Your task to perform on an android device: Open the phone app and click the voicemail tab. Image 0: 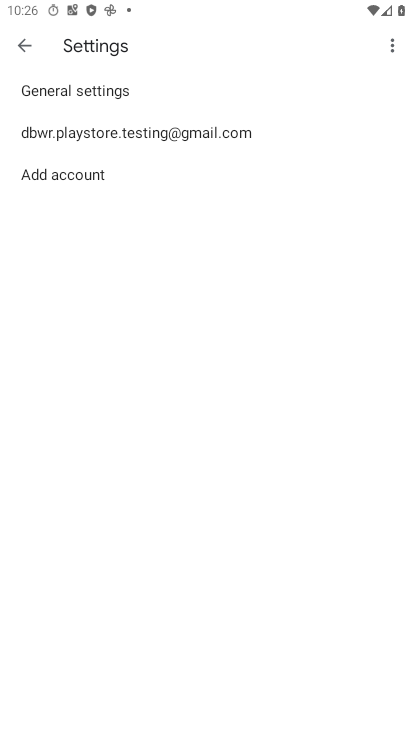
Step 0: press home button
Your task to perform on an android device: Open the phone app and click the voicemail tab. Image 1: 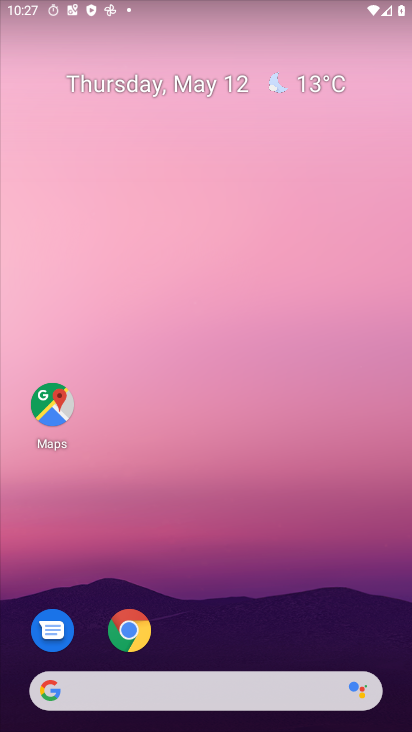
Step 1: drag from (202, 694) to (174, 291)
Your task to perform on an android device: Open the phone app and click the voicemail tab. Image 2: 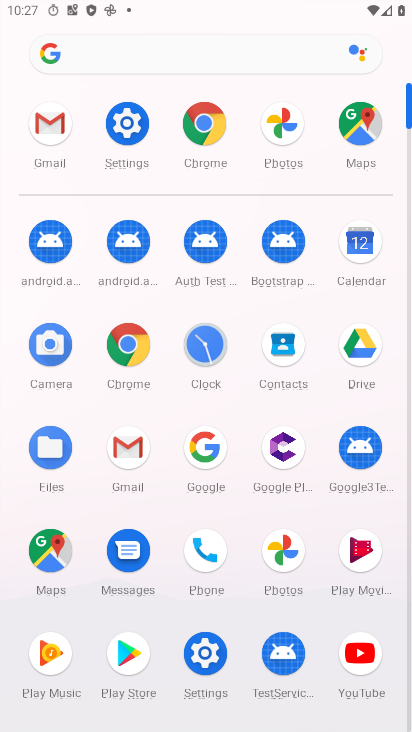
Step 2: click (193, 547)
Your task to perform on an android device: Open the phone app and click the voicemail tab. Image 3: 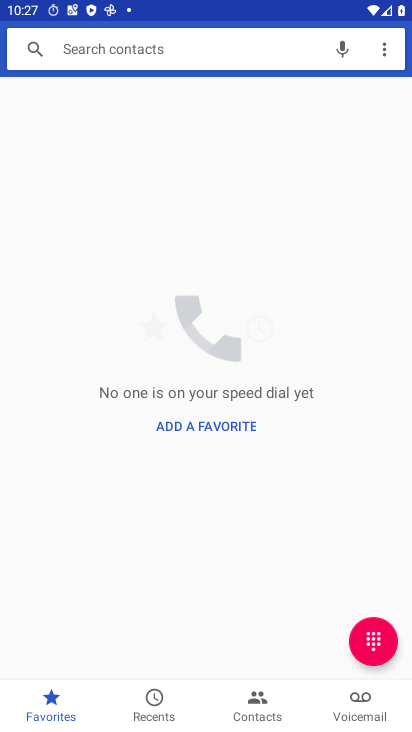
Step 3: click (345, 705)
Your task to perform on an android device: Open the phone app and click the voicemail tab. Image 4: 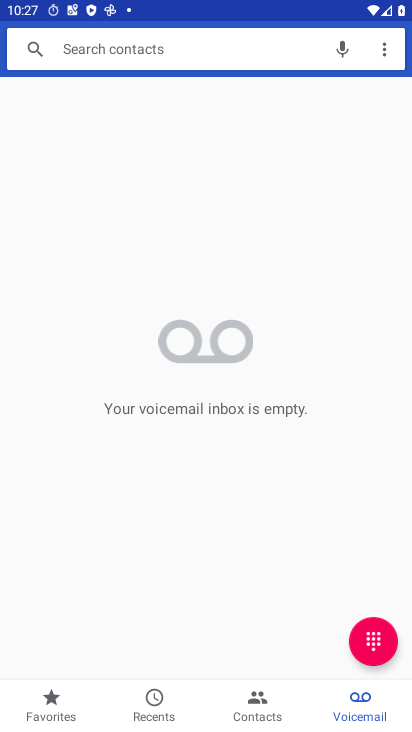
Step 4: task complete